Your task to perform on an android device: Open the map Image 0: 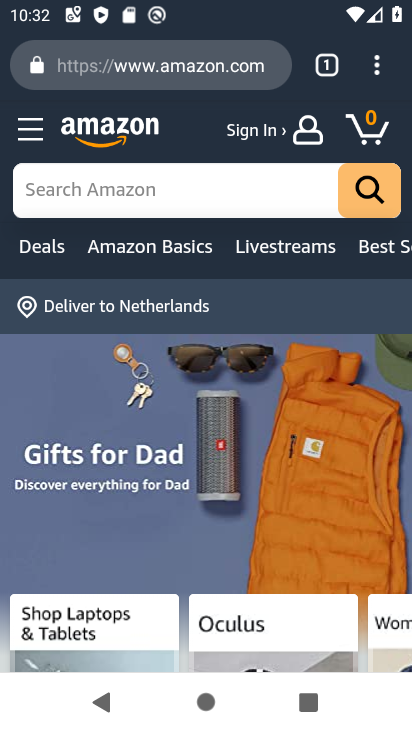
Step 0: press home button
Your task to perform on an android device: Open the map Image 1: 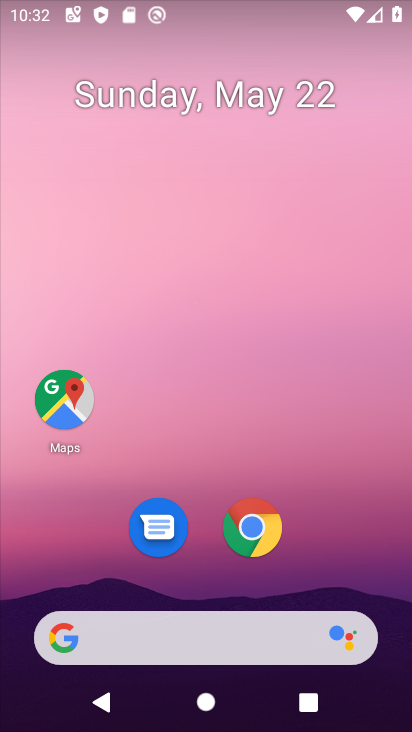
Step 1: click (51, 378)
Your task to perform on an android device: Open the map Image 2: 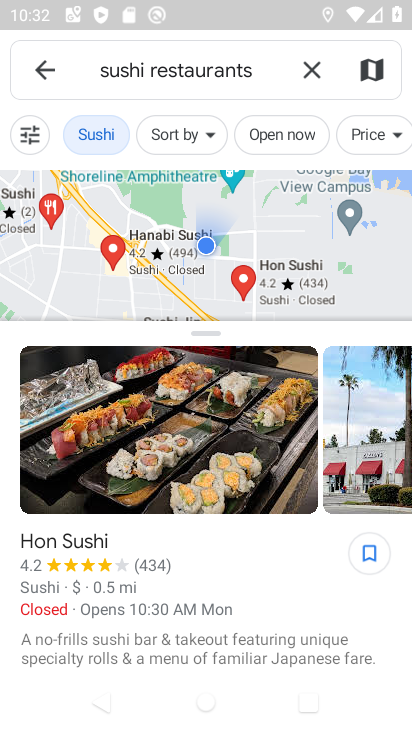
Step 2: task complete